Your task to perform on an android device: find which apps use the phone's location Image 0: 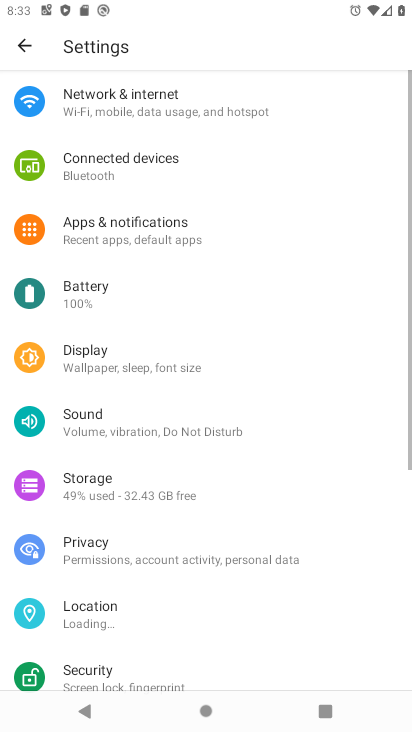
Step 0: press home button
Your task to perform on an android device: find which apps use the phone's location Image 1: 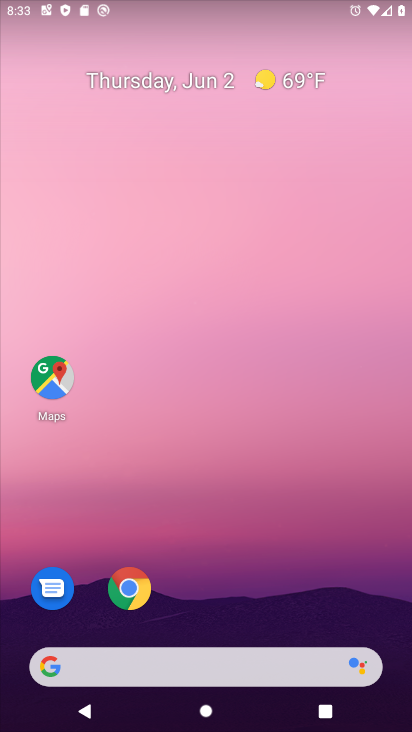
Step 1: drag from (228, 726) to (229, 114)
Your task to perform on an android device: find which apps use the phone's location Image 2: 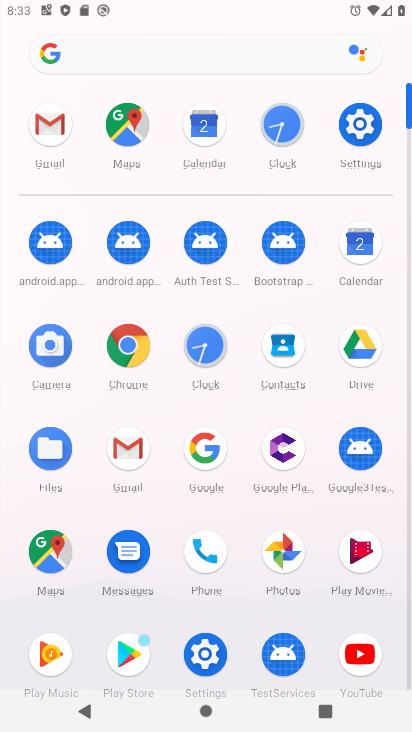
Step 2: click (359, 118)
Your task to perform on an android device: find which apps use the phone's location Image 3: 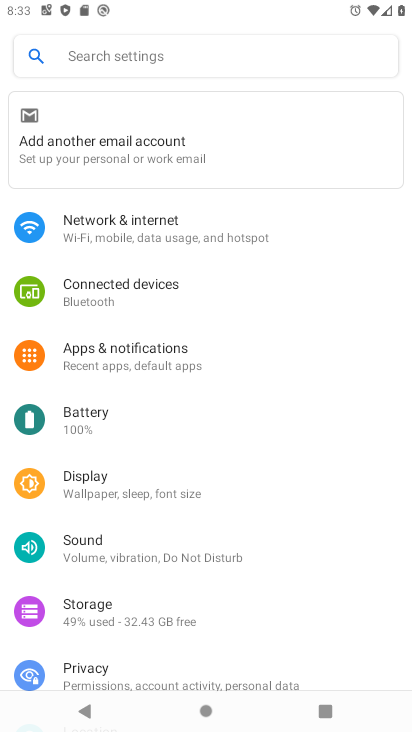
Step 3: drag from (161, 648) to (164, 232)
Your task to perform on an android device: find which apps use the phone's location Image 4: 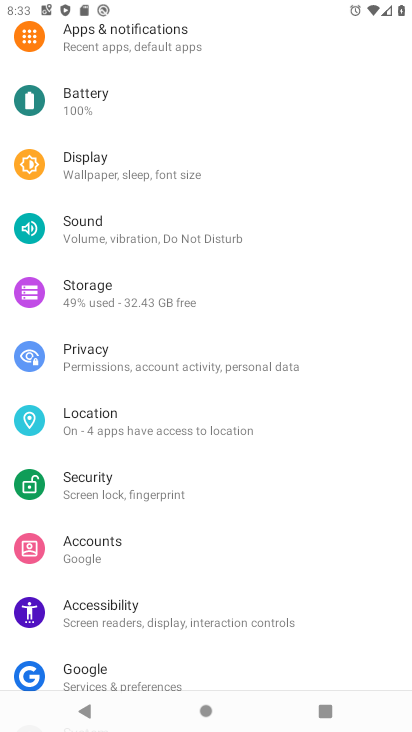
Step 4: click (86, 425)
Your task to perform on an android device: find which apps use the phone's location Image 5: 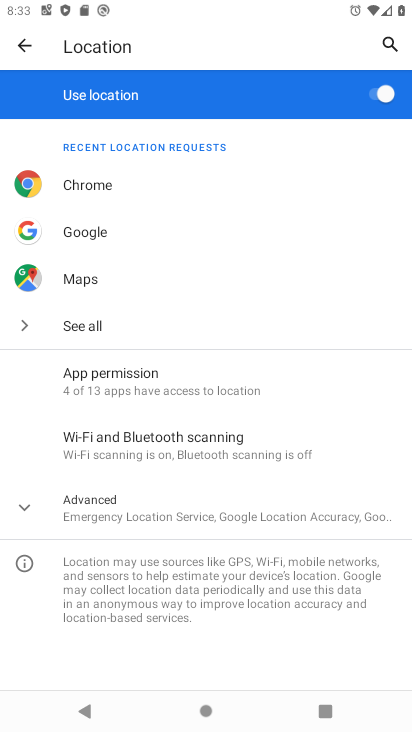
Step 5: click (127, 391)
Your task to perform on an android device: find which apps use the phone's location Image 6: 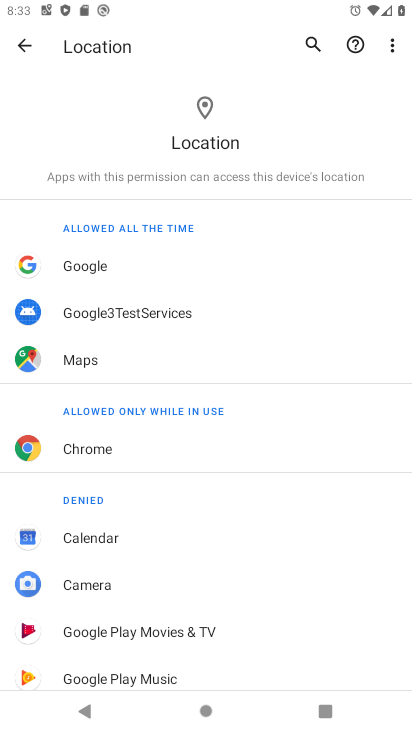
Step 6: task complete